Your task to perform on an android device: turn on improve location accuracy Image 0: 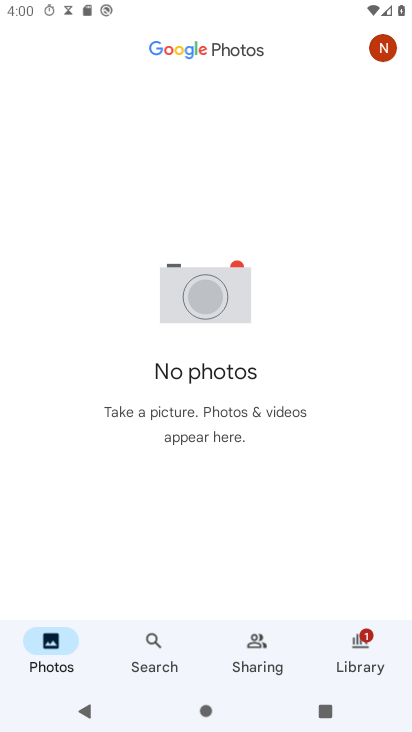
Step 0: press home button
Your task to perform on an android device: turn on improve location accuracy Image 1: 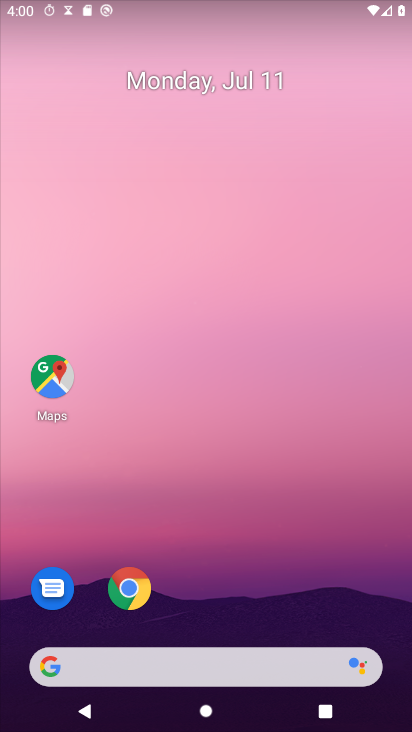
Step 1: drag from (264, 607) to (264, 170)
Your task to perform on an android device: turn on improve location accuracy Image 2: 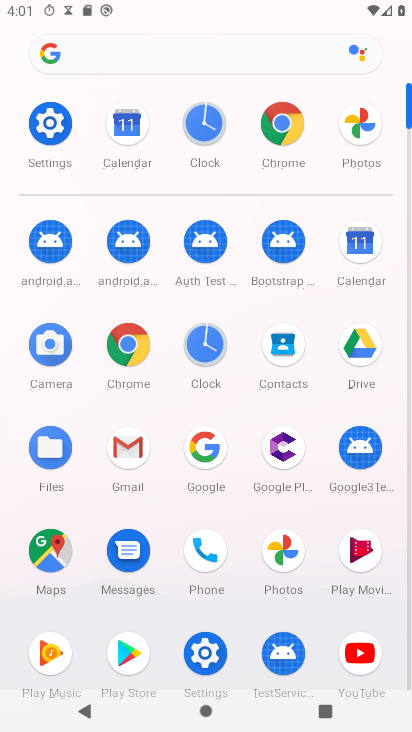
Step 2: click (44, 123)
Your task to perform on an android device: turn on improve location accuracy Image 3: 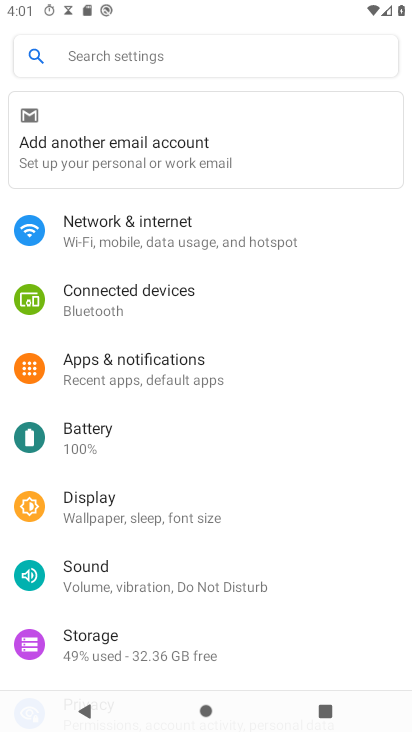
Step 3: drag from (172, 588) to (200, 386)
Your task to perform on an android device: turn on improve location accuracy Image 4: 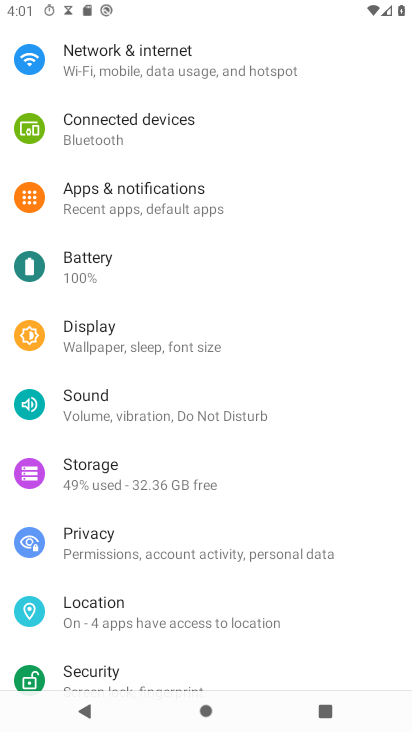
Step 4: click (153, 600)
Your task to perform on an android device: turn on improve location accuracy Image 5: 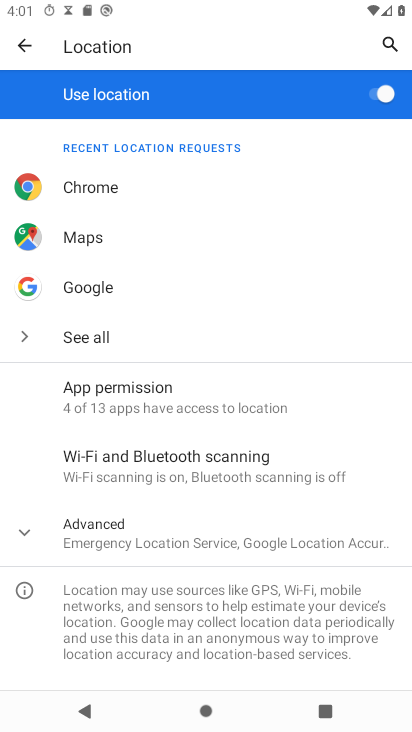
Step 5: click (218, 527)
Your task to perform on an android device: turn on improve location accuracy Image 6: 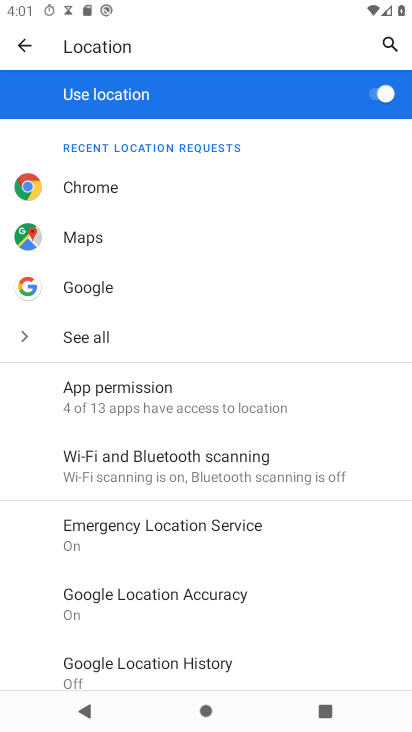
Step 6: click (200, 603)
Your task to perform on an android device: turn on improve location accuracy Image 7: 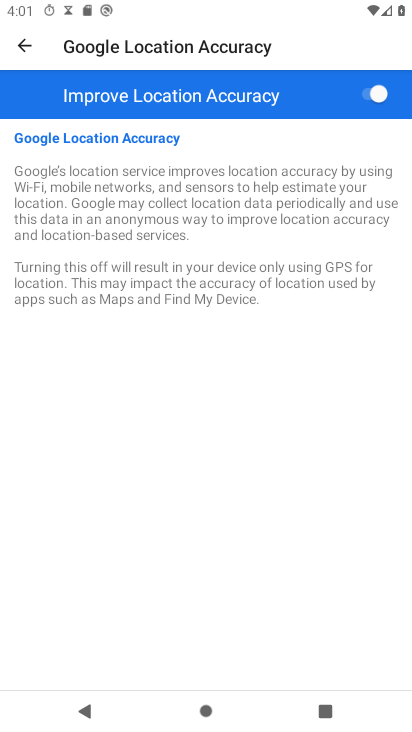
Step 7: task complete